Your task to perform on an android device: What's on my calendar tomorrow? Image 0: 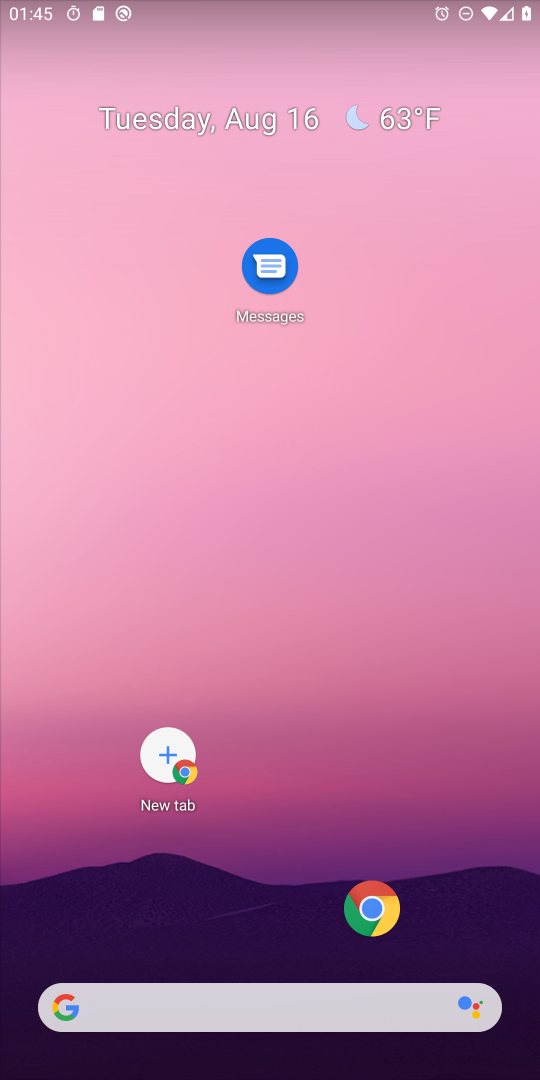
Step 0: click (225, 124)
Your task to perform on an android device: What's on my calendar tomorrow? Image 1: 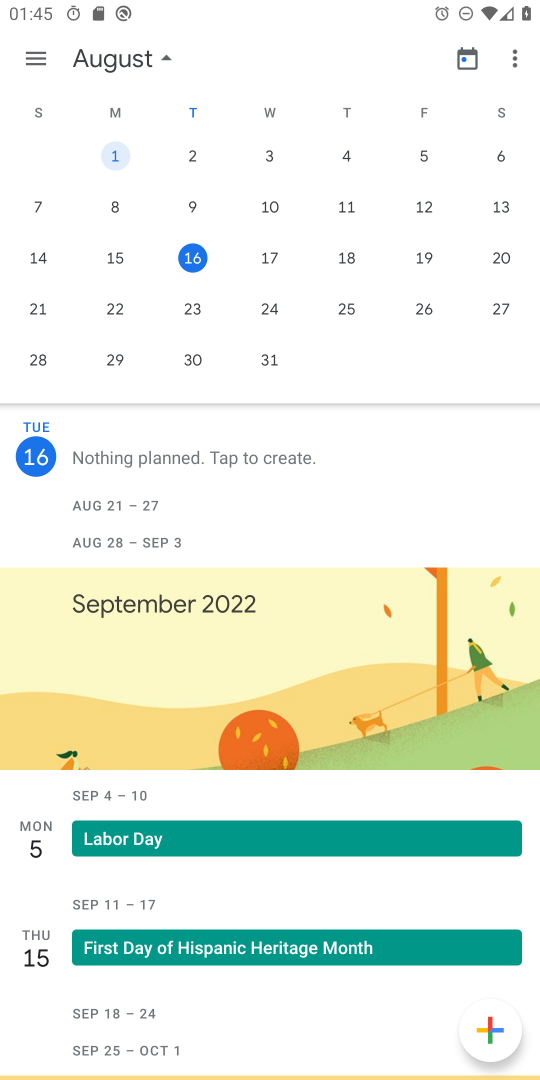
Step 1: click (259, 257)
Your task to perform on an android device: What's on my calendar tomorrow? Image 2: 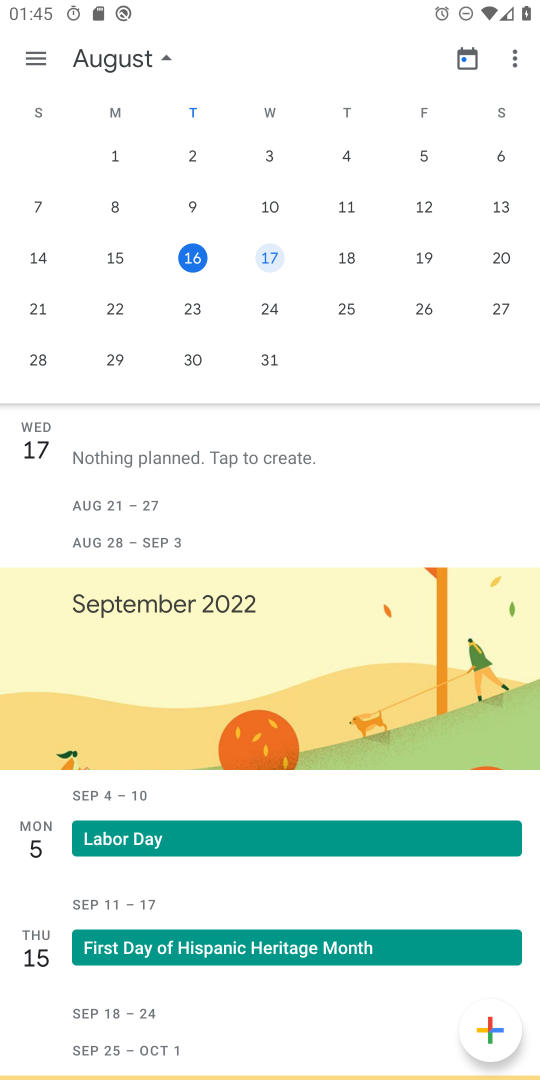
Step 2: task complete